Your task to perform on an android device: Do I have any events tomorrow? Image 0: 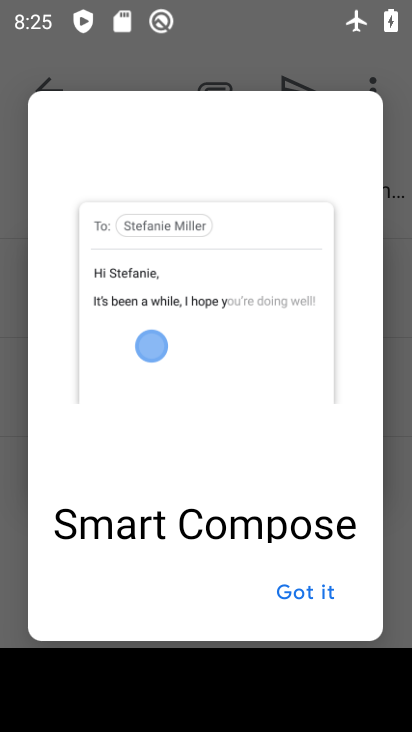
Step 0: press home button
Your task to perform on an android device: Do I have any events tomorrow? Image 1: 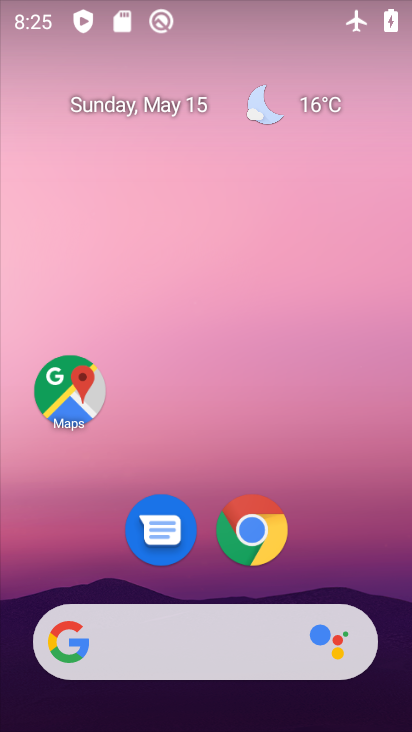
Step 1: drag from (212, 707) to (212, 206)
Your task to perform on an android device: Do I have any events tomorrow? Image 2: 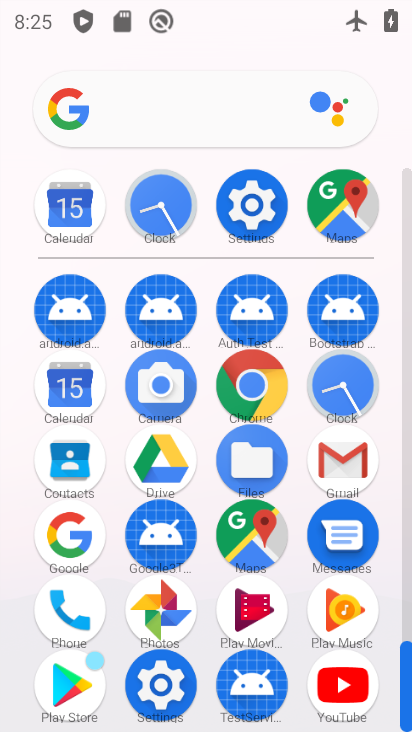
Step 2: click (68, 394)
Your task to perform on an android device: Do I have any events tomorrow? Image 3: 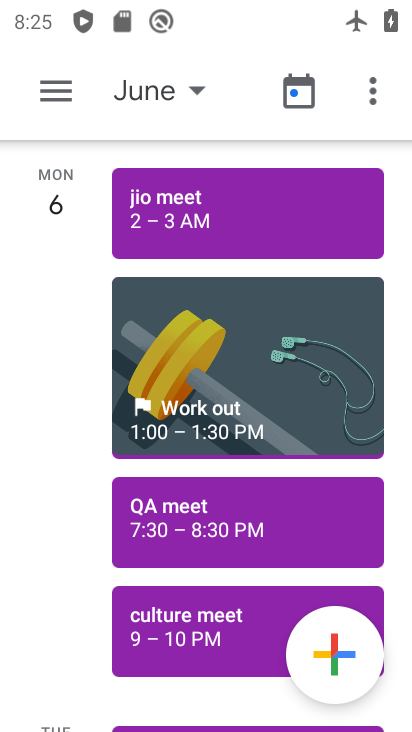
Step 3: click (55, 96)
Your task to perform on an android device: Do I have any events tomorrow? Image 4: 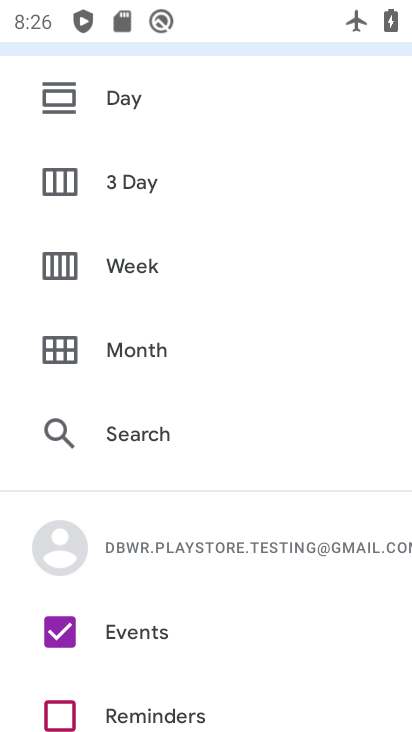
Step 4: drag from (209, 126) to (193, 501)
Your task to perform on an android device: Do I have any events tomorrow? Image 5: 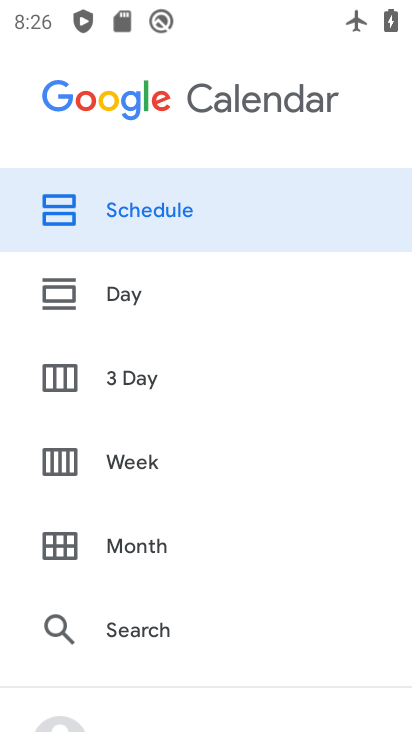
Step 5: click (146, 214)
Your task to perform on an android device: Do I have any events tomorrow? Image 6: 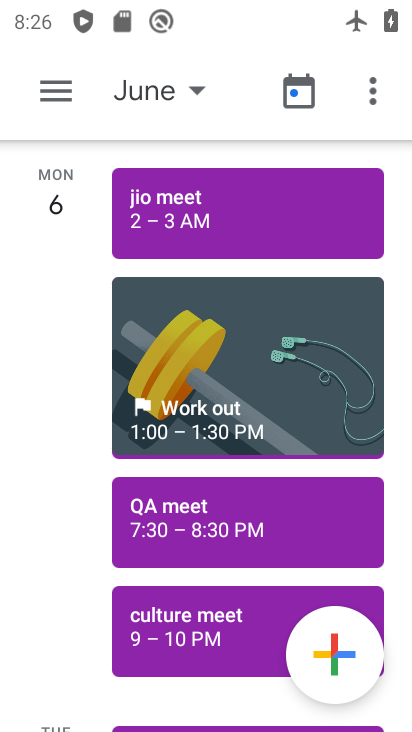
Step 6: click (155, 87)
Your task to perform on an android device: Do I have any events tomorrow? Image 7: 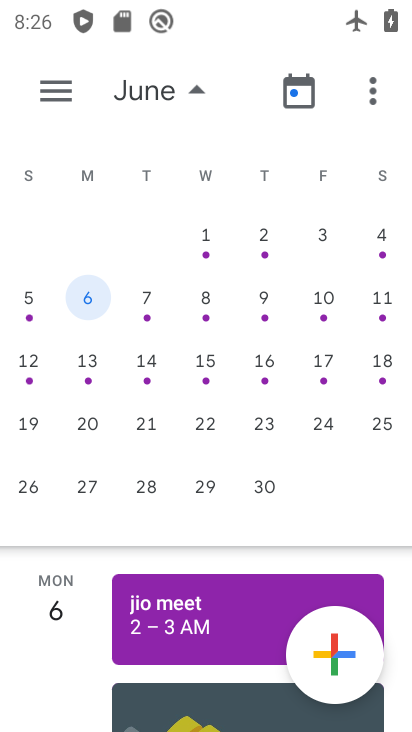
Step 7: drag from (70, 325) to (407, 359)
Your task to perform on an android device: Do I have any events tomorrow? Image 8: 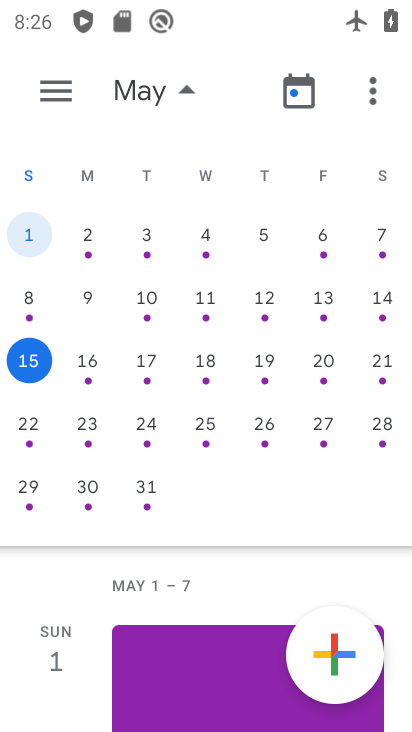
Step 8: click (79, 351)
Your task to perform on an android device: Do I have any events tomorrow? Image 9: 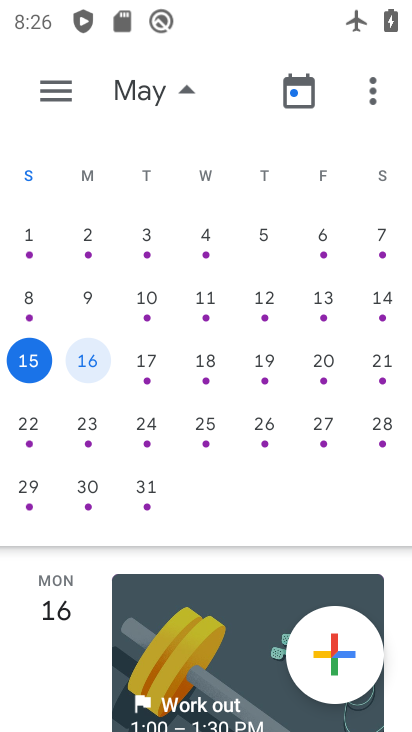
Step 9: click (183, 94)
Your task to perform on an android device: Do I have any events tomorrow? Image 10: 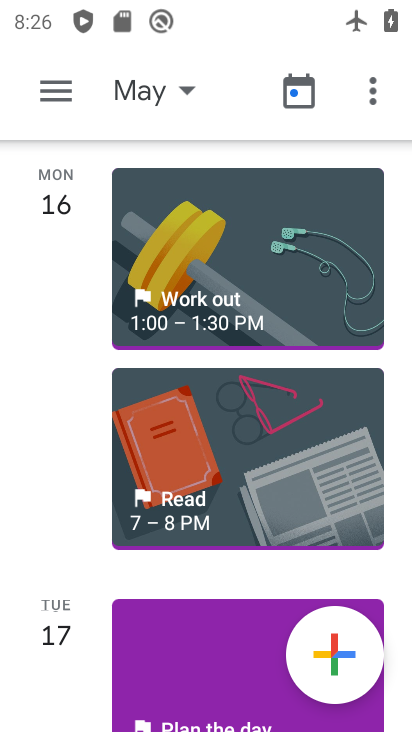
Step 10: task complete